Your task to perform on an android device: Open battery settings Image 0: 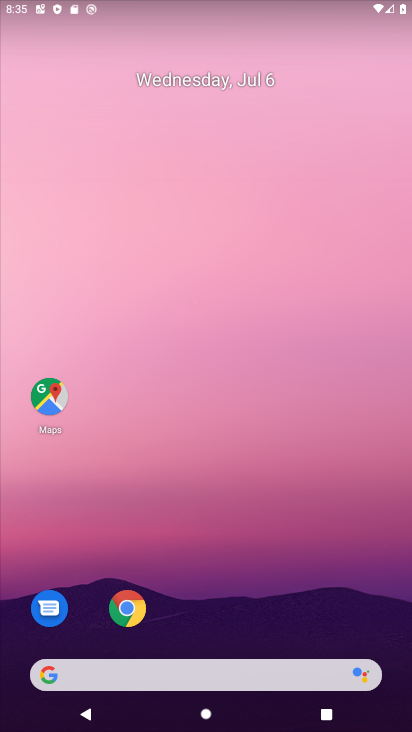
Step 0: drag from (211, 633) to (277, 259)
Your task to perform on an android device: Open battery settings Image 1: 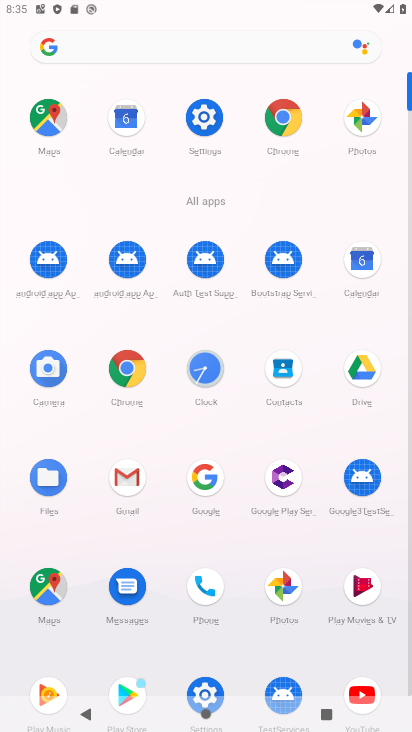
Step 1: click (200, 117)
Your task to perform on an android device: Open battery settings Image 2: 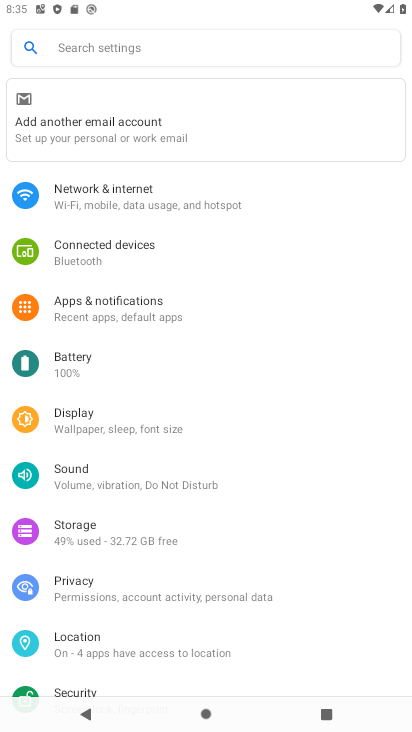
Step 2: click (82, 374)
Your task to perform on an android device: Open battery settings Image 3: 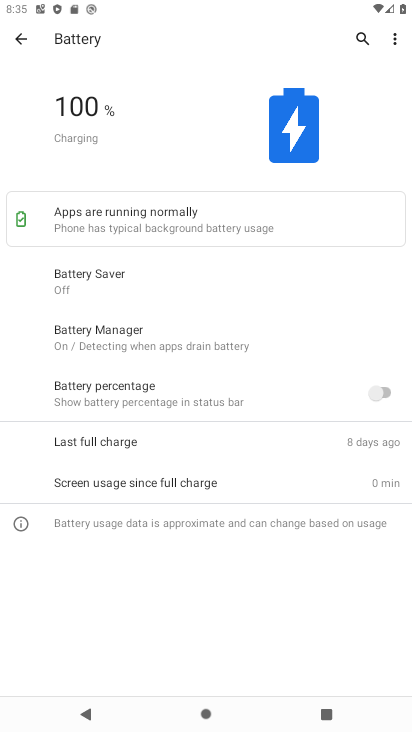
Step 3: task complete